Your task to perform on an android device: check storage Image 0: 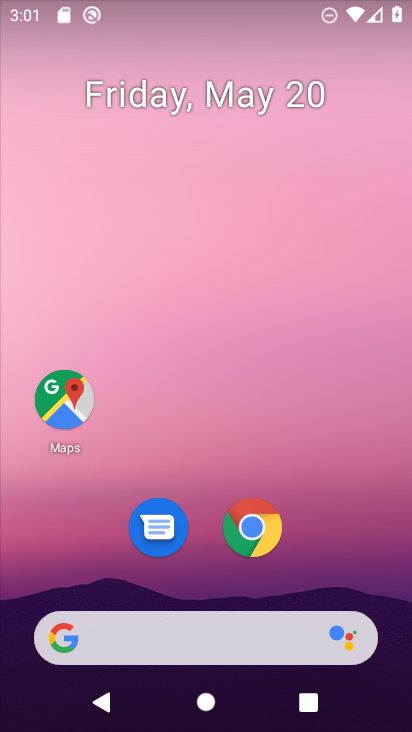
Step 0: drag from (203, 465) to (271, 60)
Your task to perform on an android device: check storage Image 1: 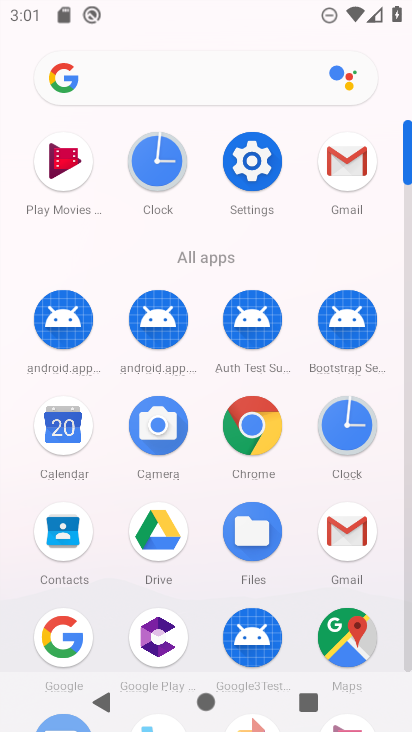
Step 1: click (254, 152)
Your task to perform on an android device: check storage Image 2: 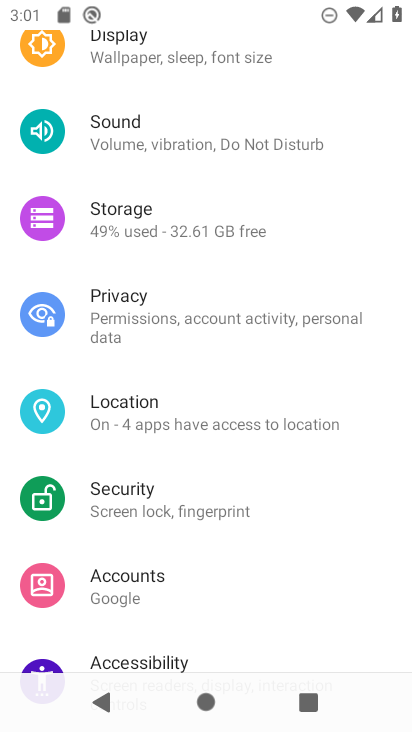
Step 2: click (158, 214)
Your task to perform on an android device: check storage Image 3: 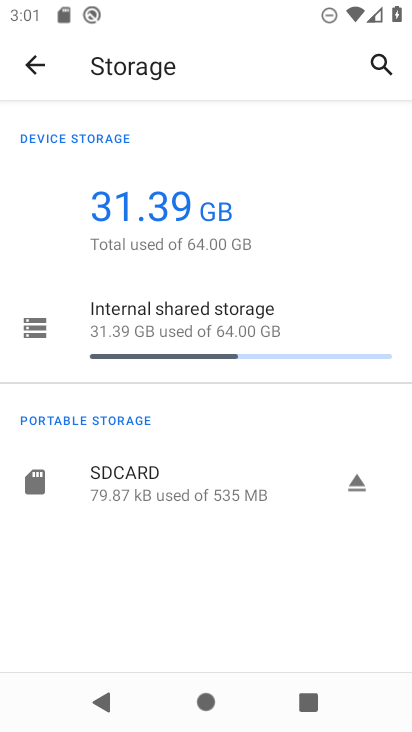
Step 3: task complete